Your task to perform on an android device: check google app version Image 0: 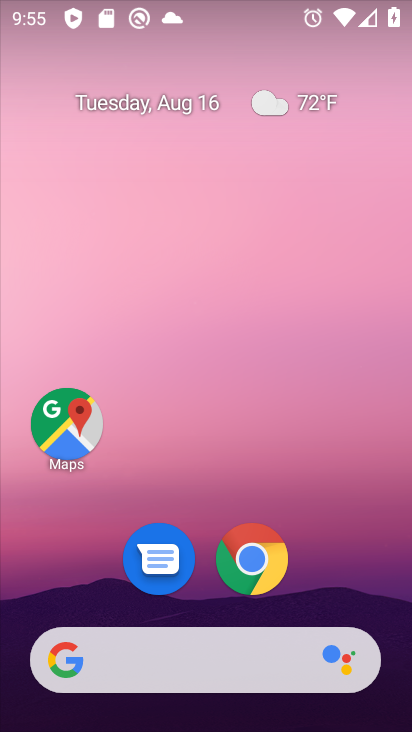
Step 0: drag from (175, 652) to (211, 88)
Your task to perform on an android device: check google app version Image 1: 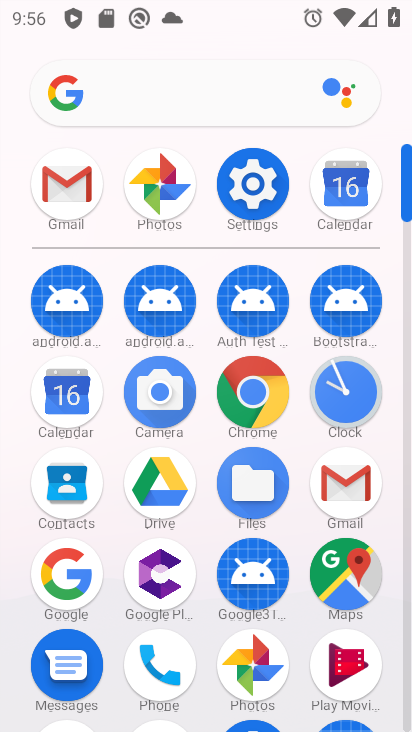
Step 1: click (71, 570)
Your task to perform on an android device: check google app version Image 2: 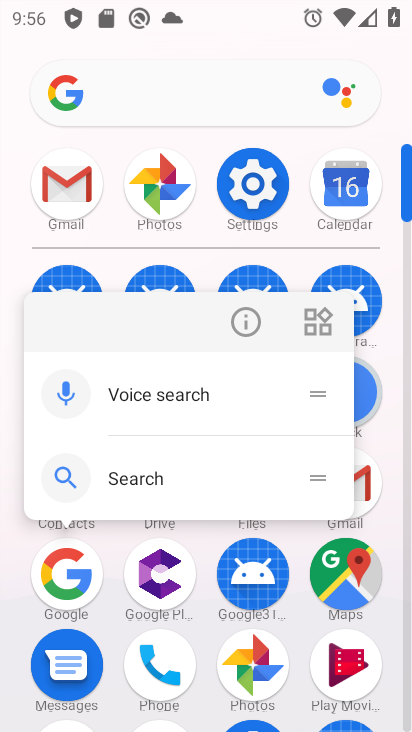
Step 2: click (247, 325)
Your task to perform on an android device: check google app version Image 3: 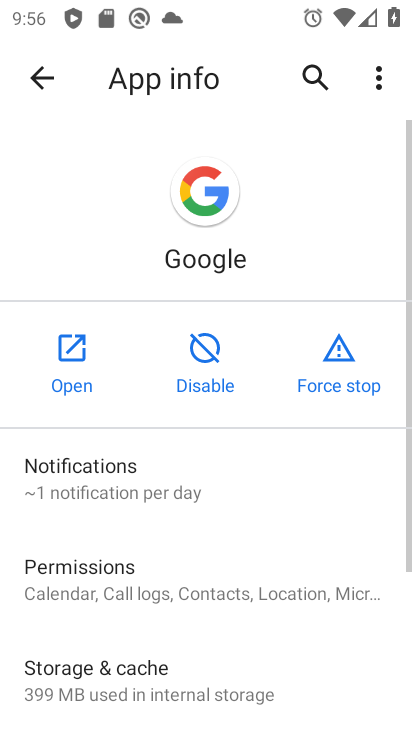
Step 3: drag from (217, 503) to (317, 246)
Your task to perform on an android device: check google app version Image 4: 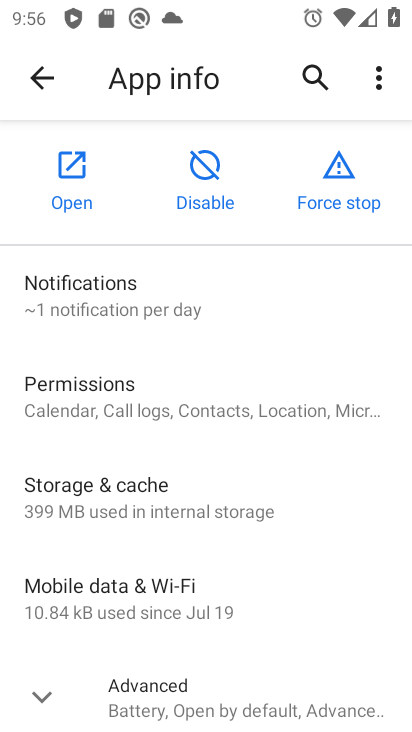
Step 4: drag from (179, 531) to (284, 307)
Your task to perform on an android device: check google app version Image 5: 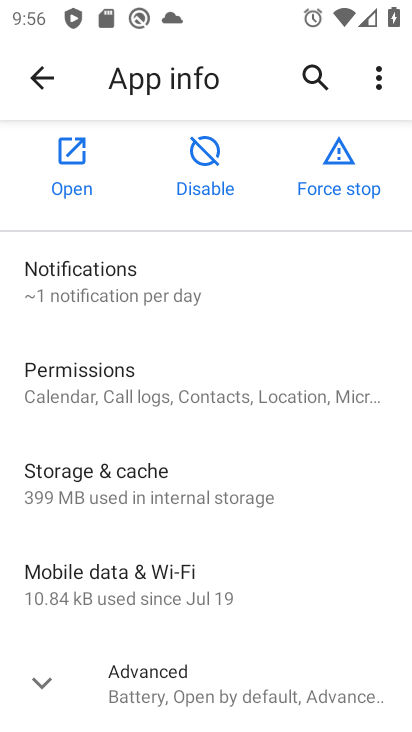
Step 5: click (167, 680)
Your task to perform on an android device: check google app version Image 6: 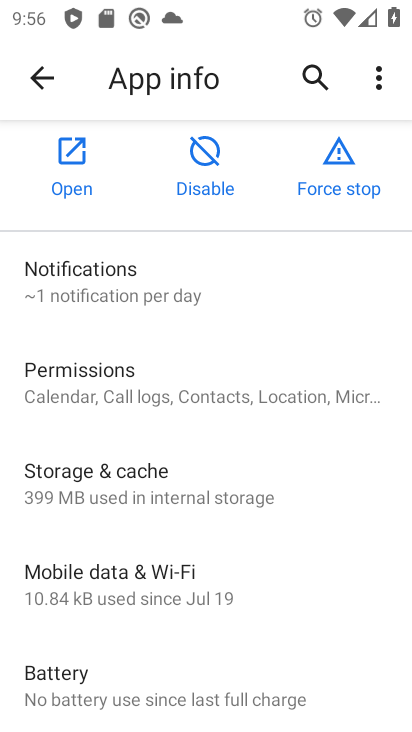
Step 6: task complete